Your task to perform on an android device: What is the capital of Japan? Image 0: 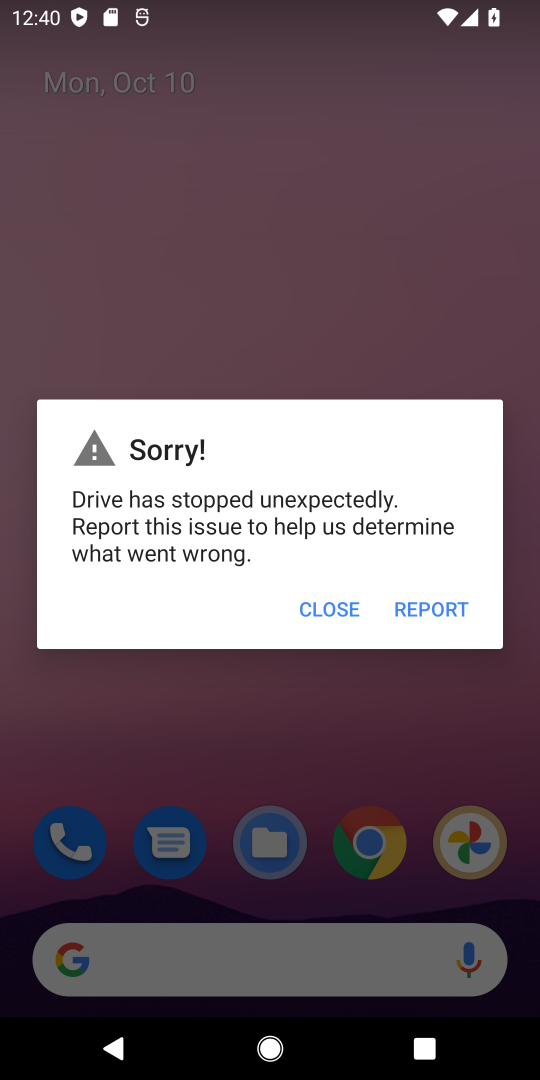
Step 0: click (292, 605)
Your task to perform on an android device: What is the capital of Japan? Image 1: 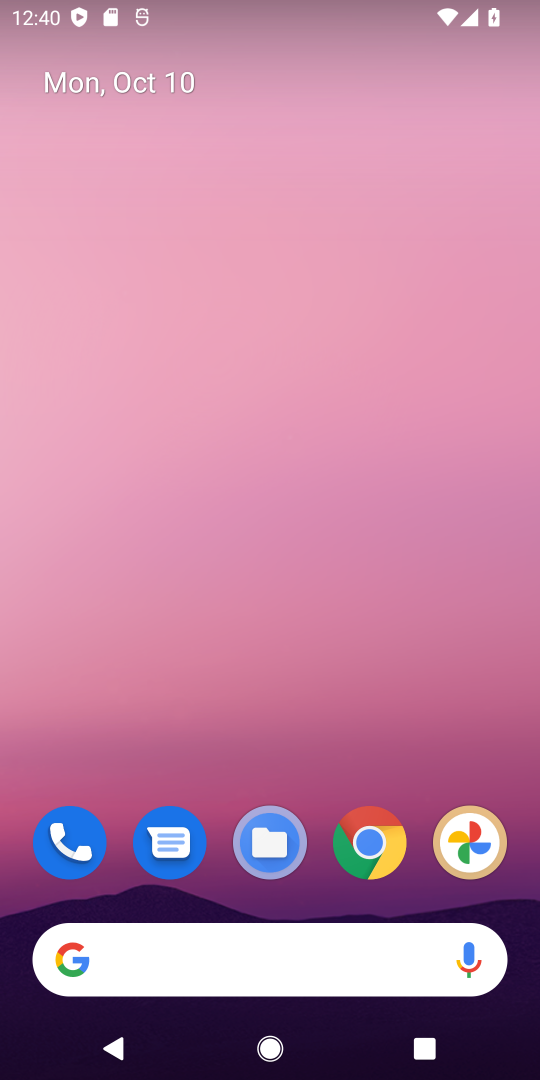
Step 1: click (376, 857)
Your task to perform on an android device: What is the capital of Japan? Image 2: 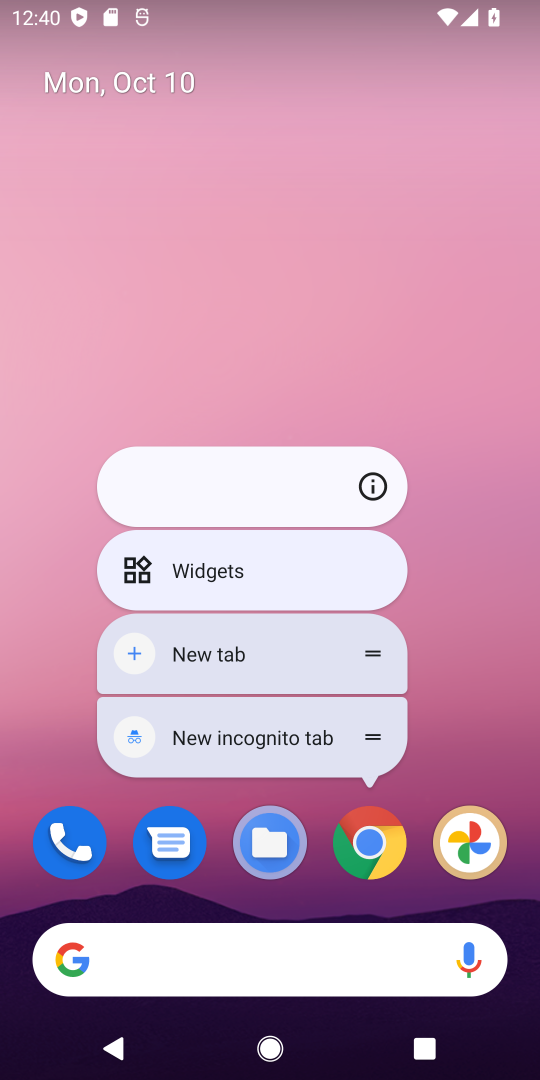
Step 2: click (373, 847)
Your task to perform on an android device: What is the capital of Japan? Image 3: 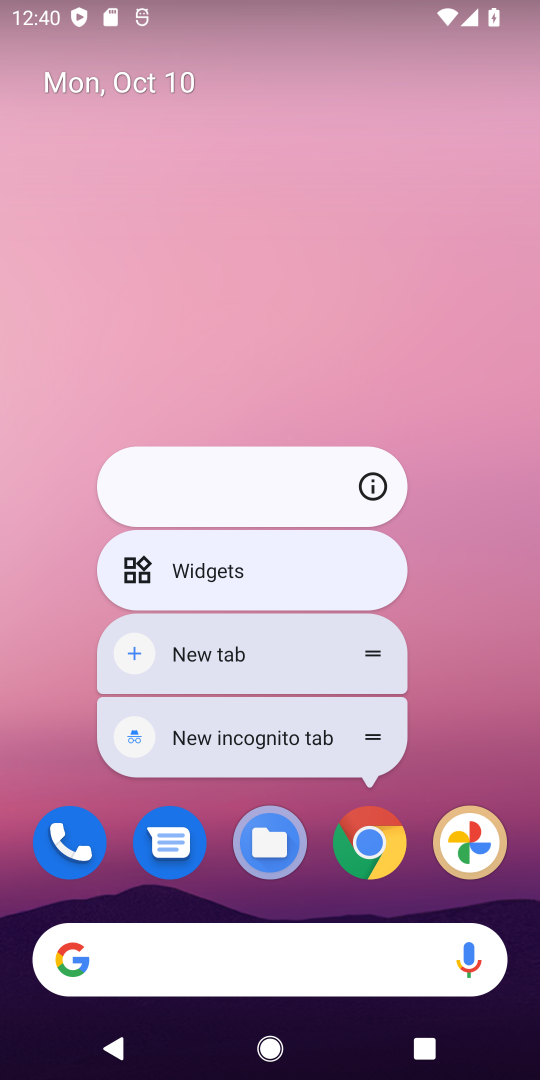
Step 3: click (377, 849)
Your task to perform on an android device: What is the capital of Japan? Image 4: 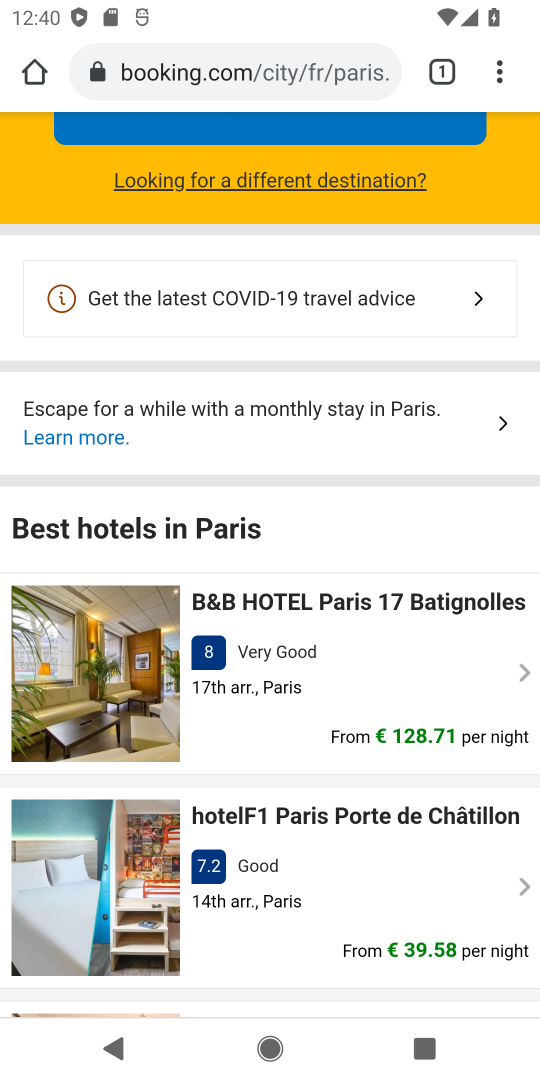
Step 4: click (280, 70)
Your task to perform on an android device: What is the capital of Japan? Image 5: 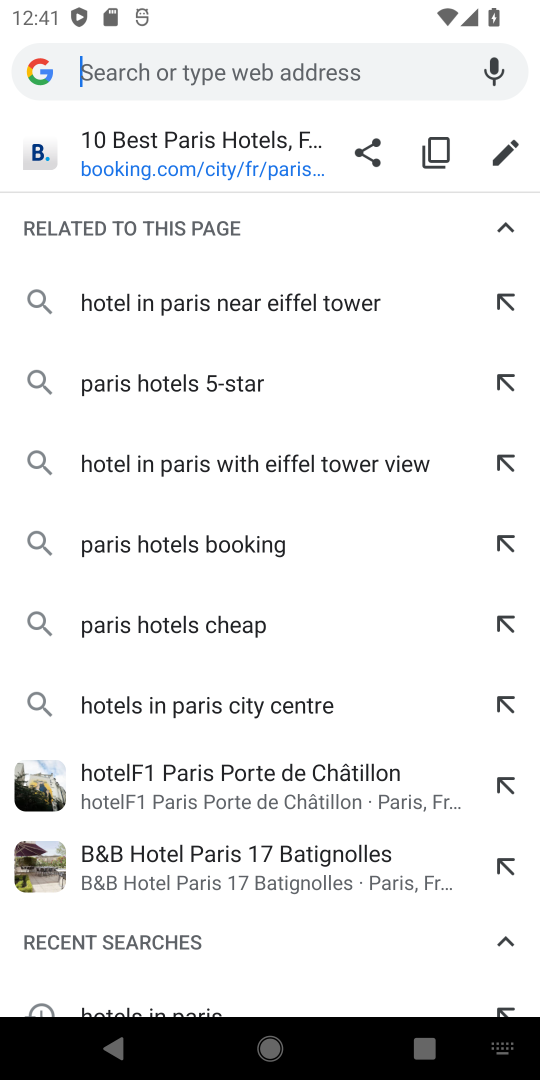
Step 5: type "capital of Japan"
Your task to perform on an android device: What is the capital of Japan? Image 6: 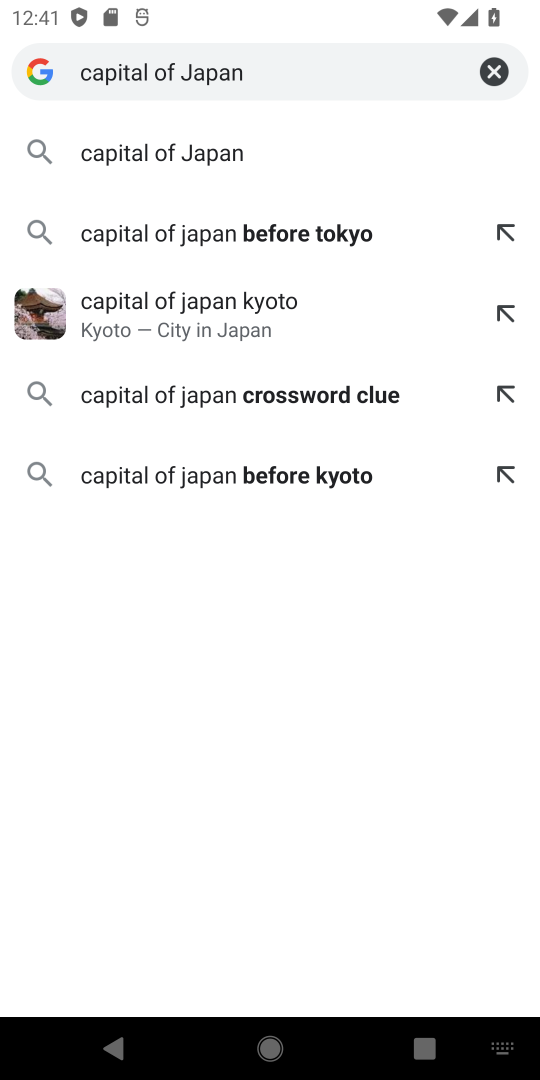
Step 6: press enter
Your task to perform on an android device: What is the capital of Japan? Image 7: 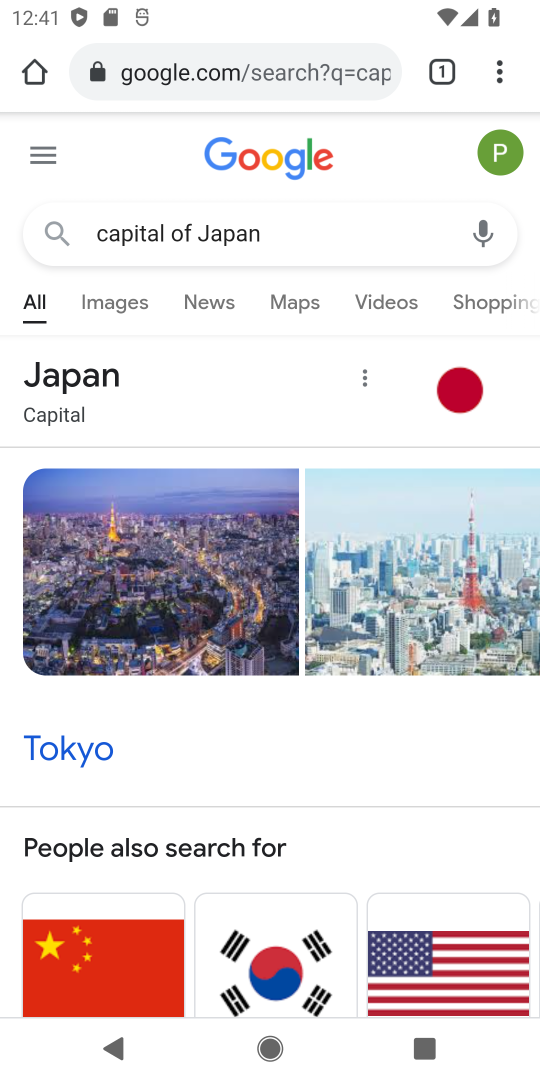
Step 7: task complete